Your task to perform on an android device: toggle notifications settings in the gmail app Image 0: 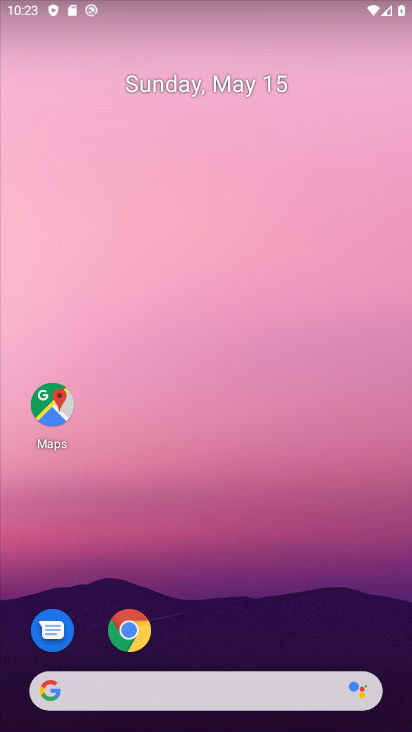
Step 0: drag from (238, 569) to (334, 117)
Your task to perform on an android device: toggle notifications settings in the gmail app Image 1: 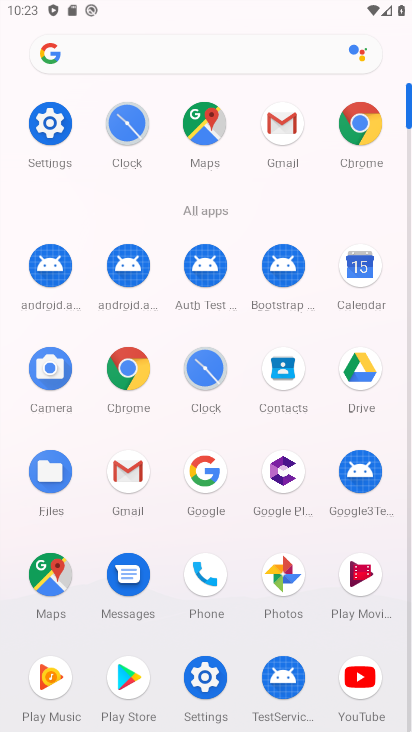
Step 1: click (270, 98)
Your task to perform on an android device: toggle notifications settings in the gmail app Image 2: 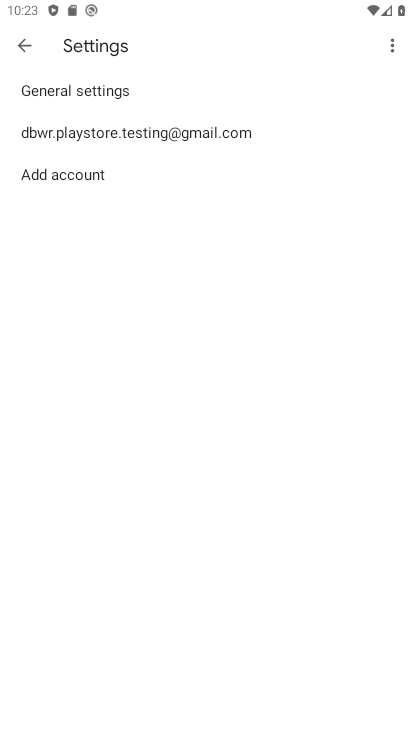
Step 2: click (164, 133)
Your task to perform on an android device: toggle notifications settings in the gmail app Image 3: 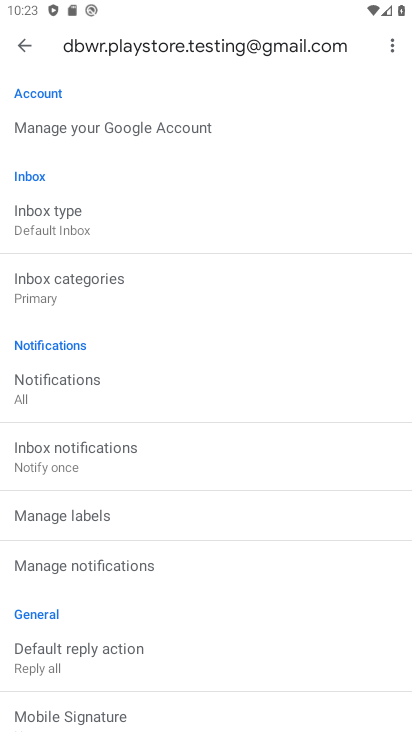
Step 3: click (103, 561)
Your task to perform on an android device: toggle notifications settings in the gmail app Image 4: 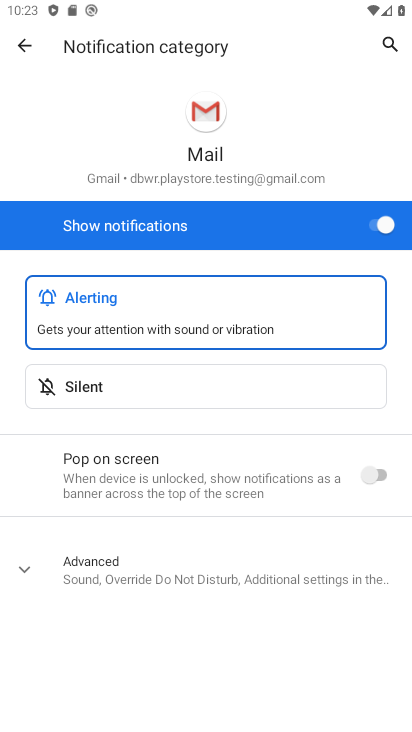
Step 4: click (383, 226)
Your task to perform on an android device: toggle notifications settings in the gmail app Image 5: 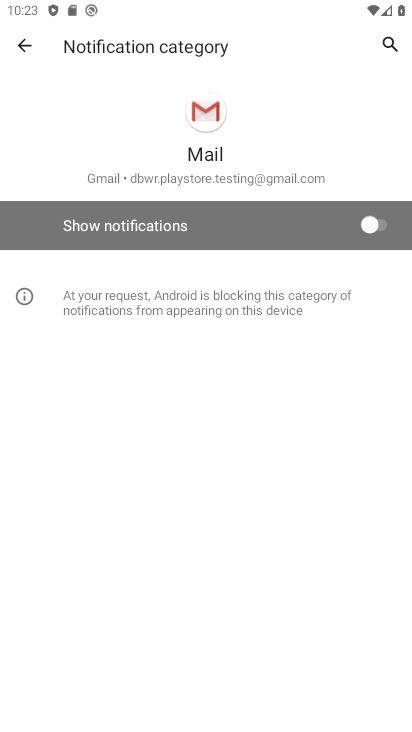
Step 5: task complete